Your task to perform on an android device: turn on bluetooth scan Image 0: 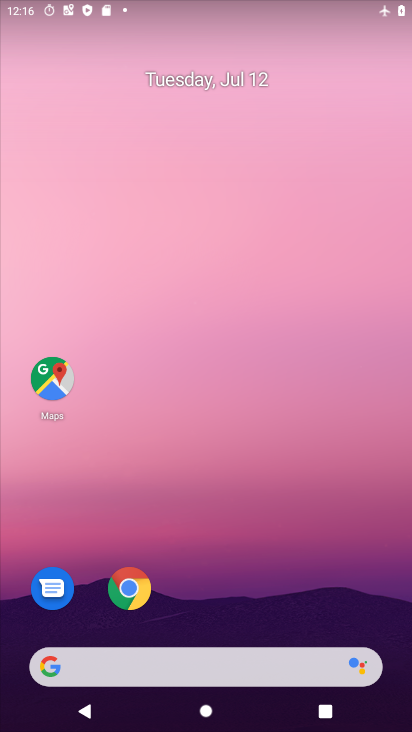
Step 0: drag from (274, 595) to (237, 187)
Your task to perform on an android device: turn on bluetooth scan Image 1: 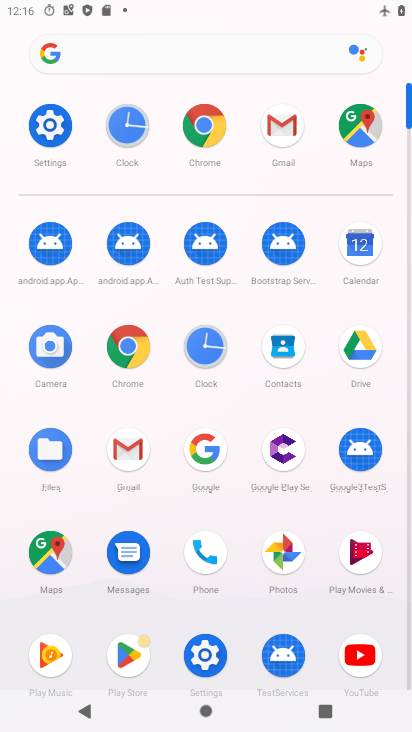
Step 1: click (34, 128)
Your task to perform on an android device: turn on bluetooth scan Image 2: 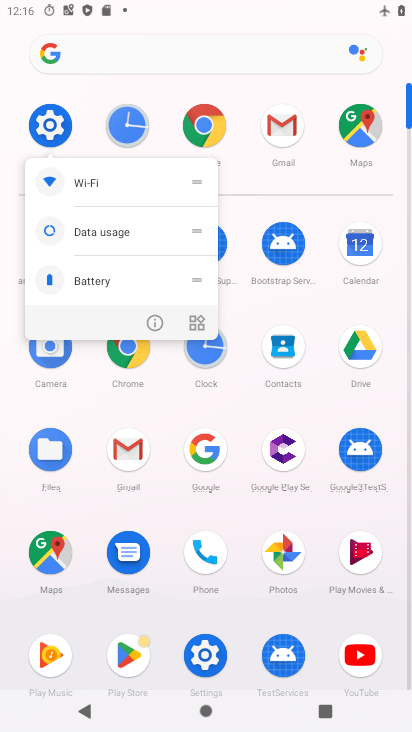
Step 2: click (41, 121)
Your task to perform on an android device: turn on bluetooth scan Image 3: 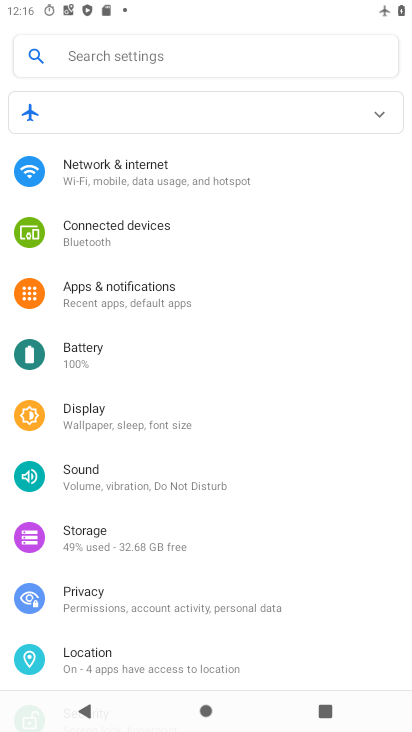
Step 3: click (108, 663)
Your task to perform on an android device: turn on bluetooth scan Image 4: 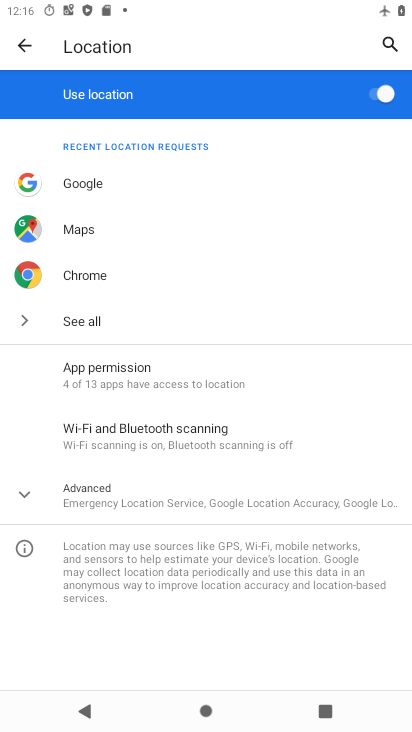
Step 4: click (221, 444)
Your task to perform on an android device: turn on bluetooth scan Image 5: 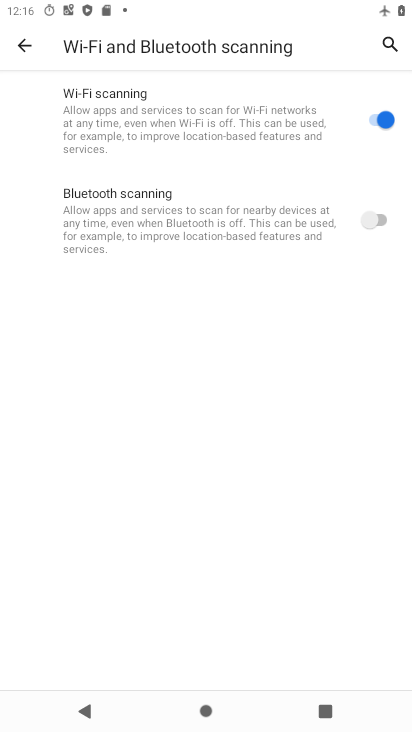
Step 5: click (356, 222)
Your task to perform on an android device: turn on bluetooth scan Image 6: 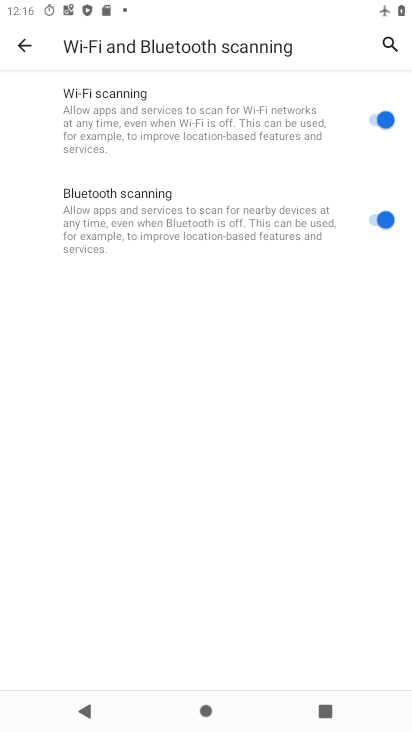
Step 6: task complete